Your task to perform on an android device: snooze an email in the gmail app Image 0: 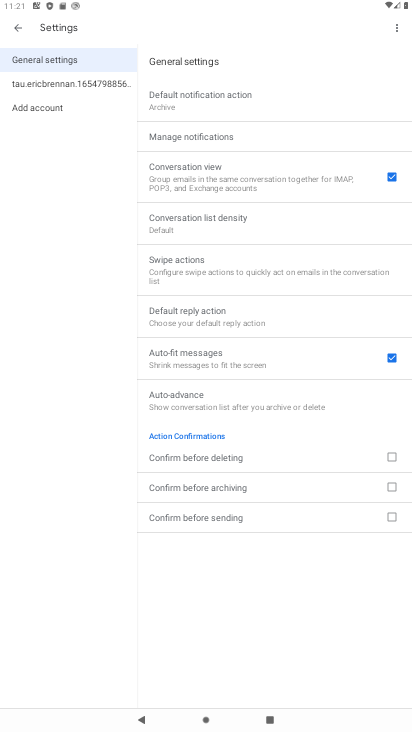
Step 0: press home button
Your task to perform on an android device: snooze an email in the gmail app Image 1: 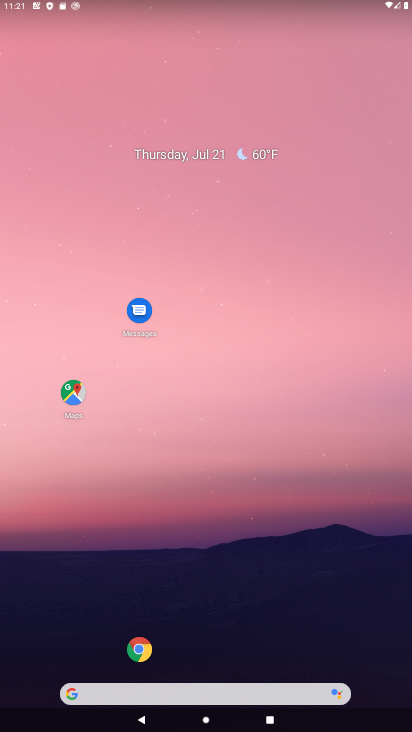
Step 1: drag from (57, 608) to (264, 63)
Your task to perform on an android device: snooze an email in the gmail app Image 2: 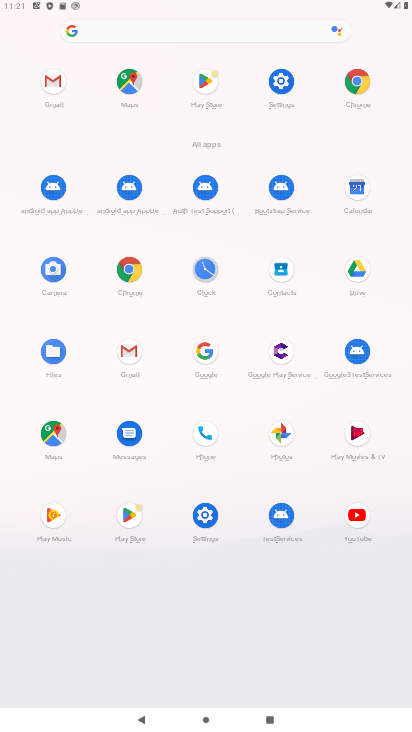
Step 2: click (130, 354)
Your task to perform on an android device: snooze an email in the gmail app Image 3: 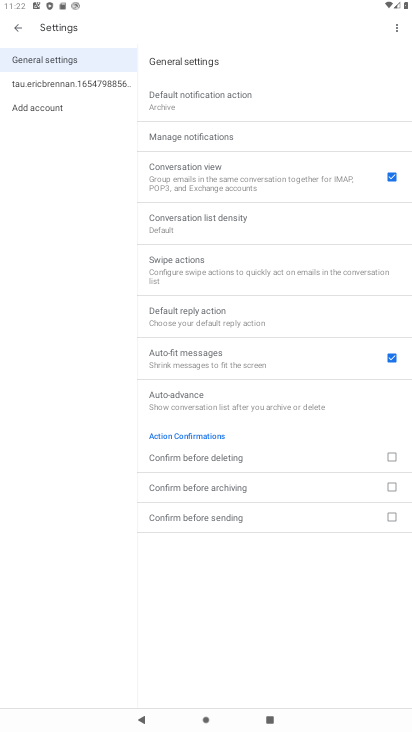
Step 3: click (6, 30)
Your task to perform on an android device: snooze an email in the gmail app Image 4: 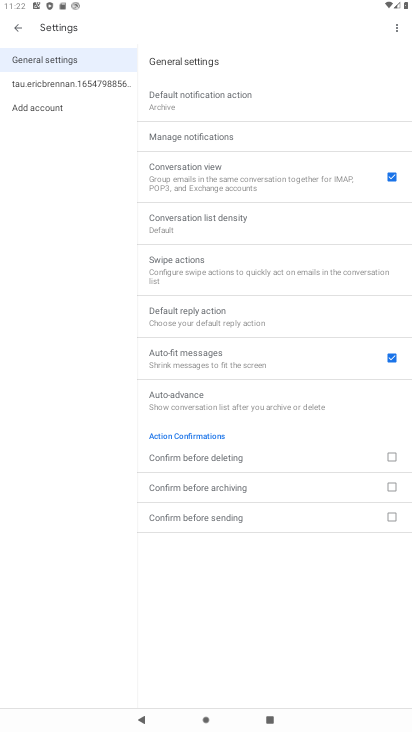
Step 4: click (12, 27)
Your task to perform on an android device: snooze an email in the gmail app Image 5: 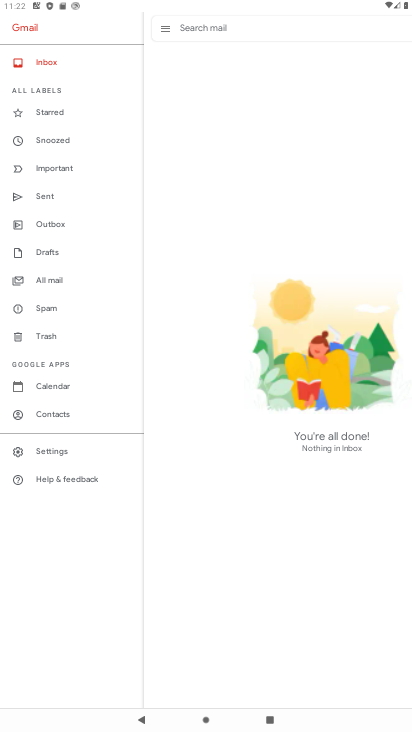
Step 5: click (49, 142)
Your task to perform on an android device: snooze an email in the gmail app Image 6: 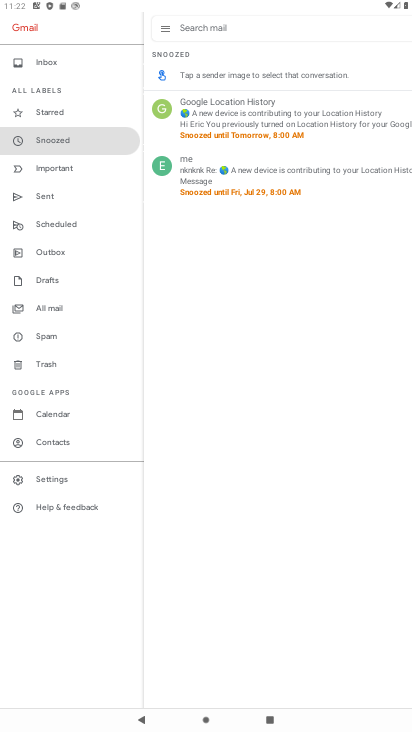
Step 6: task complete